Your task to perform on an android device: open device folders in google photos Image 0: 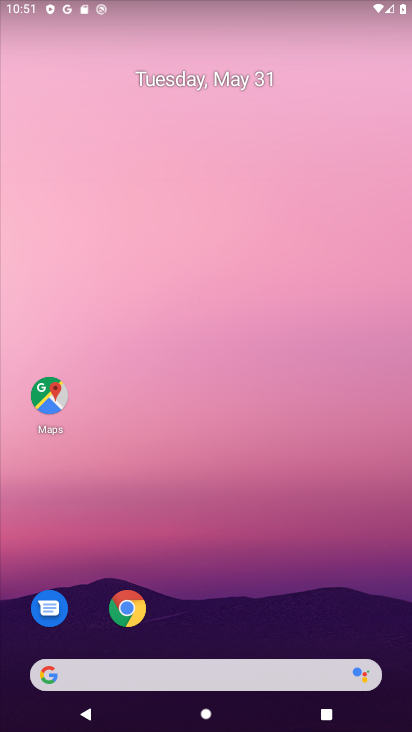
Step 0: drag from (341, 628) to (305, 62)
Your task to perform on an android device: open device folders in google photos Image 1: 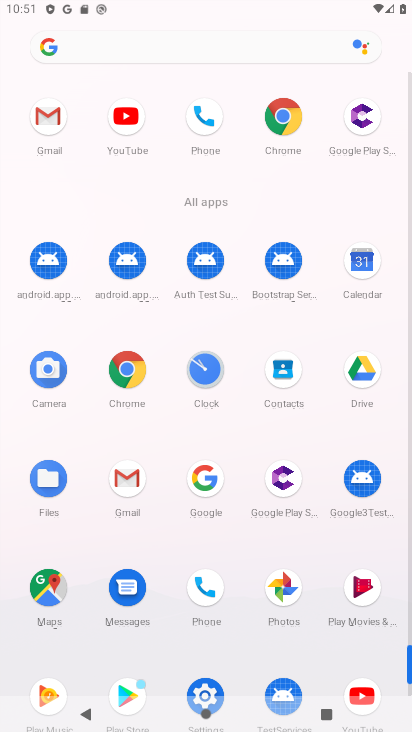
Step 1: click (273, 593)
Your task to perform on an android device: open device folders in google photos Image 2: 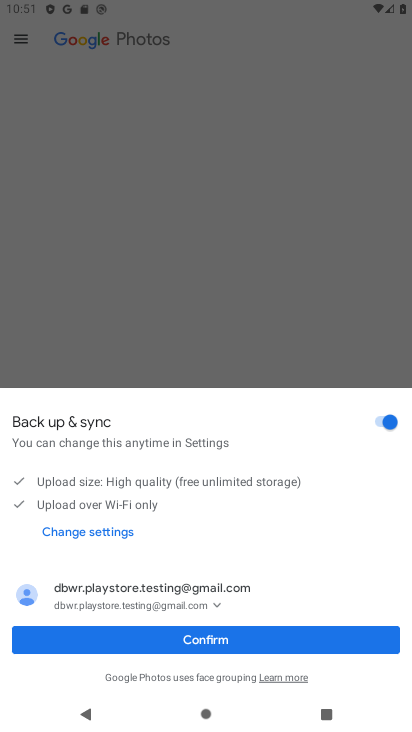
Step 2: click (127, 633)
Your task to perform on an android device: open device folders in google photos Image 3: 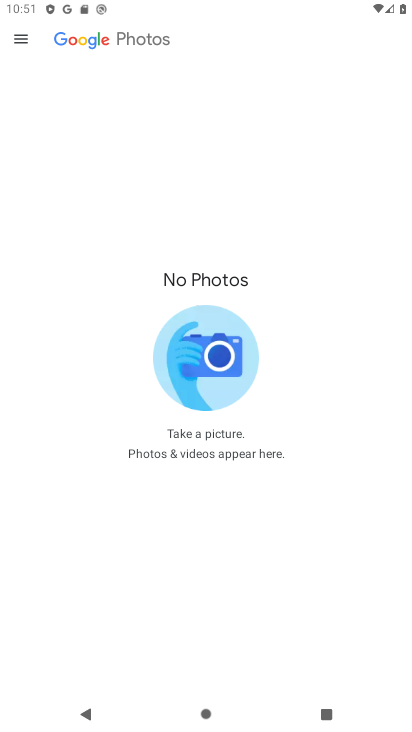
Step 3: click (21, 36)
Your task to perform on an android device: open device folders in google photos Image 4: 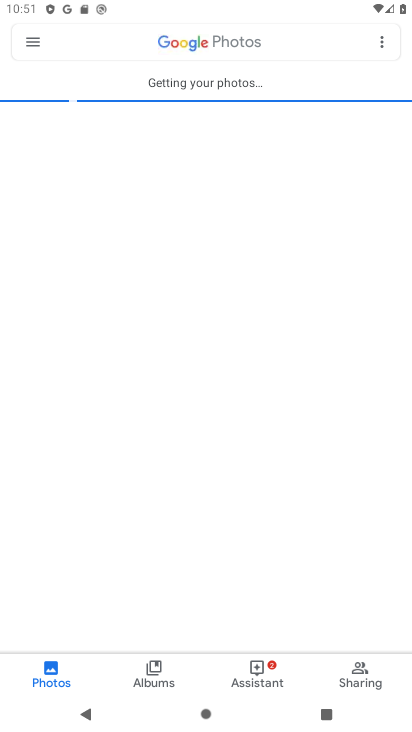
Step 4: click (21, 36)
Your task to perform on an android device: open device folders in google photos Image 5: 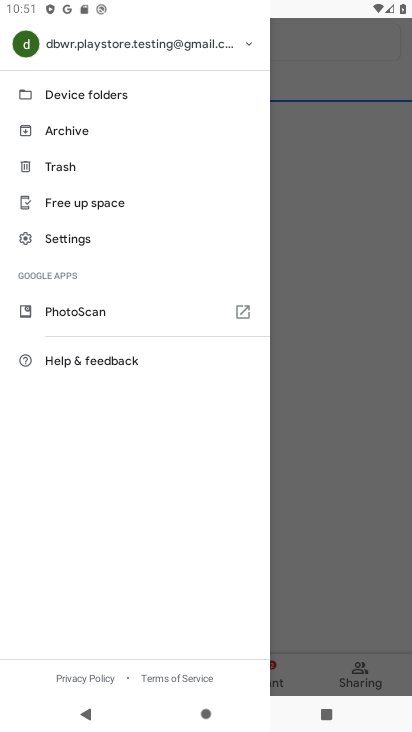
Step 5: click (64, 95)
Your task to perform on an android device: open device folders in google photos Image 6: 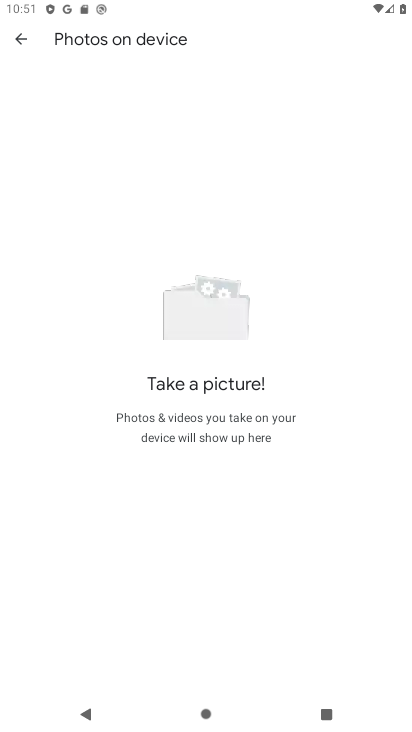
Step 6: task complete